Your task to perform on an android device: Open display settings Image 0: 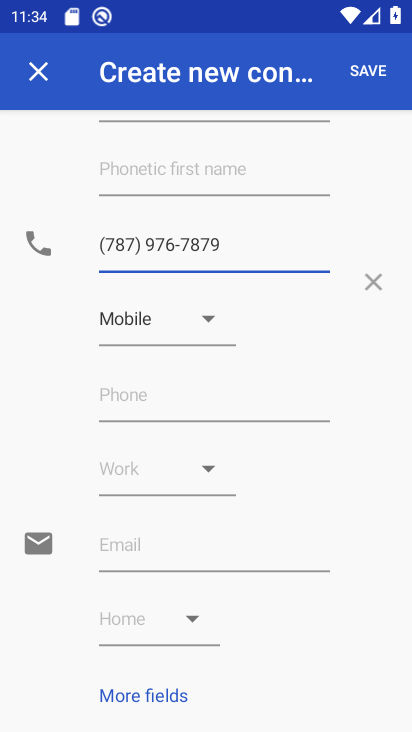
Step 0: press home button
Your task to perform on an android device: Open display settings Image 1: 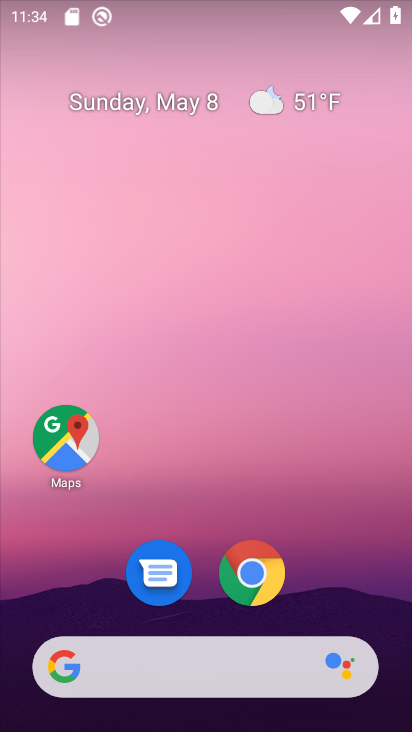
Step 1: drag from (191, 642) to (192, 280)
Your task to perform on an android device: Open display settings Image 2: 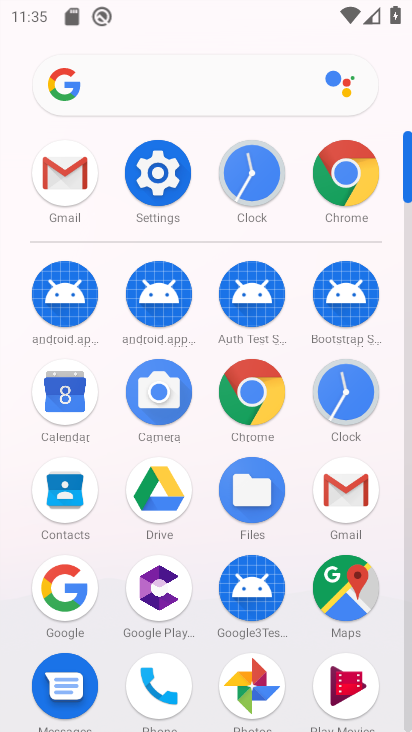
Step 2: click (158, 178)
Your task to perform on an android device: Open display settings Image 3: 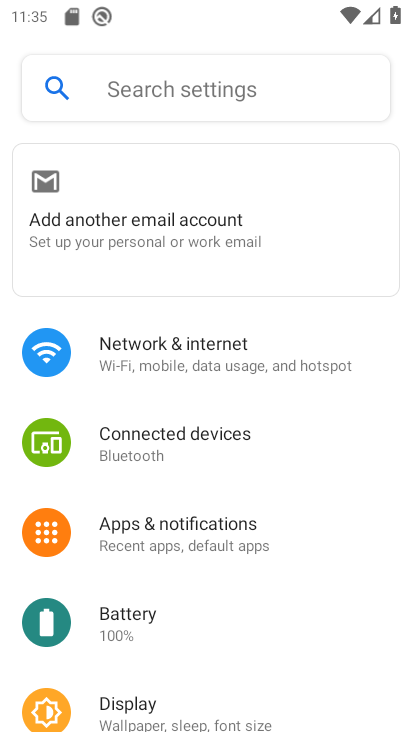
Step 3: click (140, 723)
Your task to perform on an android device: Open display settings Image 4: 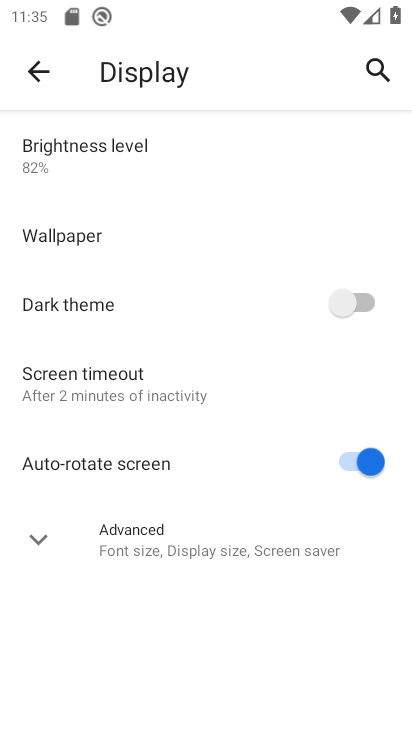
Step 4: click (118, 548)
Your task to perform on an android device: Open display settings Image 5: 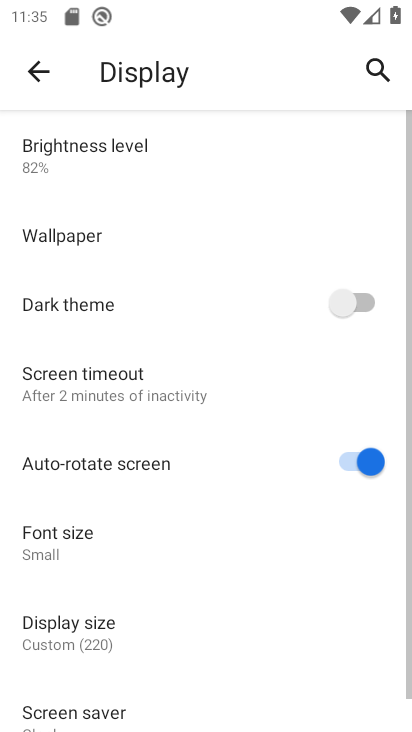
Step 5: task complete